Your task to perform on an android device: Open the calendar app, open the side menu, and click the "Day" option Image 0: 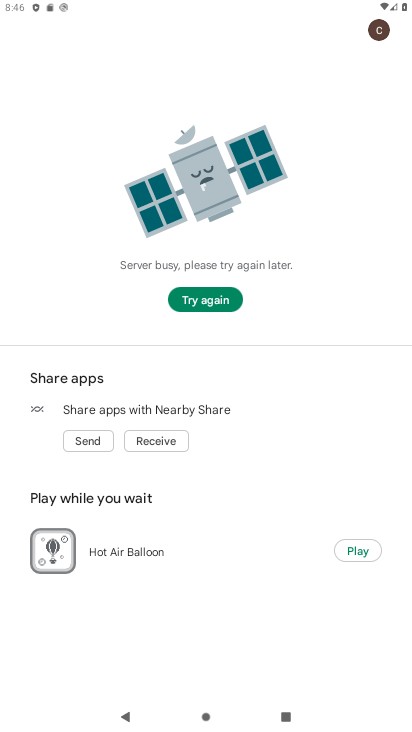
Step 0: press home button
Your task to perform on an android device: Open the calendar app, open the side menu, and click the "Day" option Image 1: 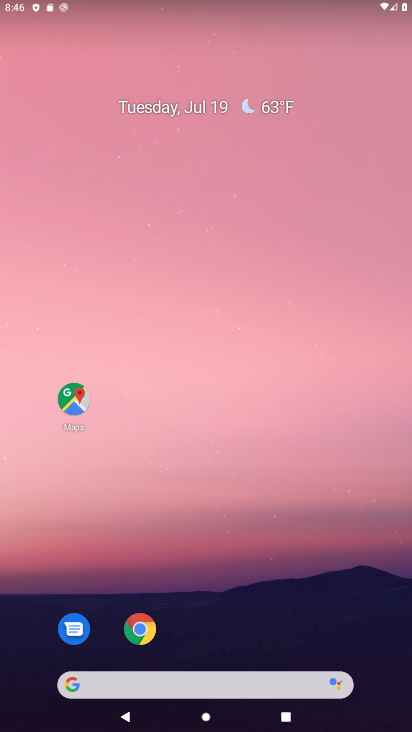
Step 1: drag from (236, 647) to (246, 58)
Your task to perform on an android device: Open the calendar app, open the side menu, and click the "Day" option Image 2: 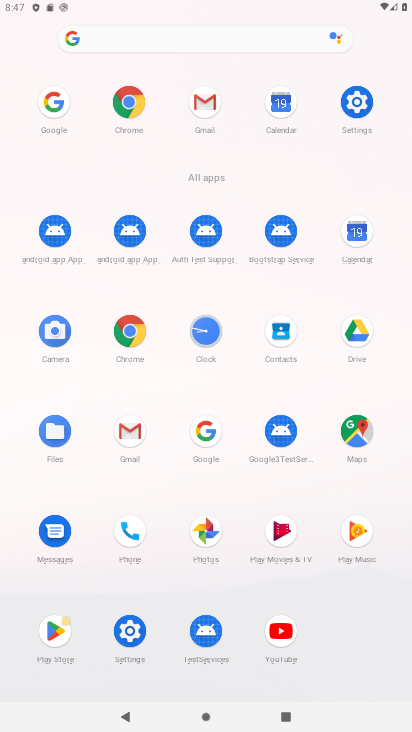
Step 2: click (354, 231)
Your task to perform on an android device: Open the calendar app, open the side menu, and click the "Day" option Image 3: 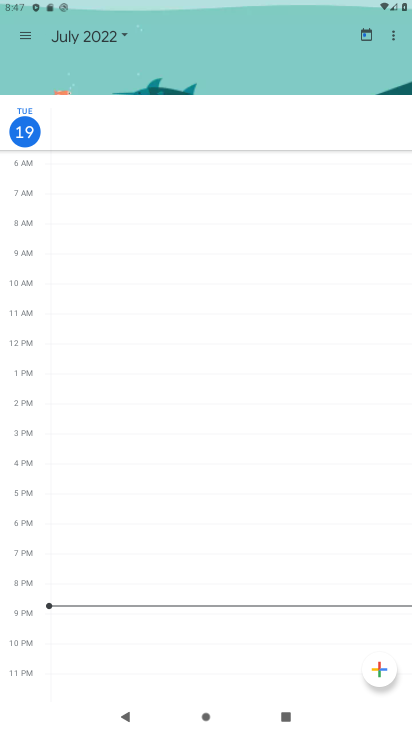
Step 3: click (29, 32)
Your task to perform on an android device: Open the calendar app, open the side menu, and click the "Day" option Image 4: 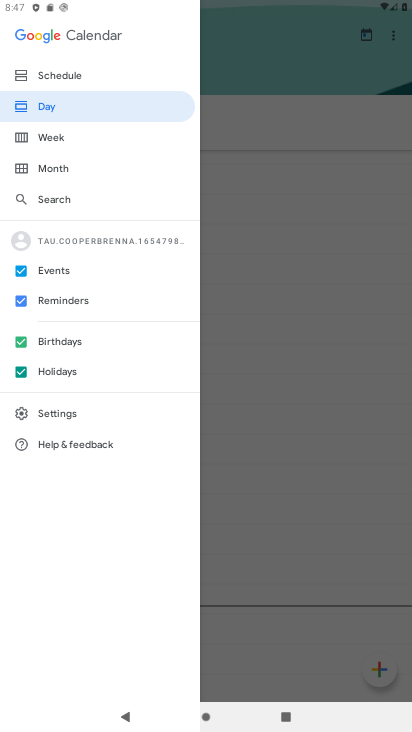
Step 4: click (49, 109)
Your task to perform on an android device: Open the calendar app, open the side menu, and click the "Day" option Image 5: 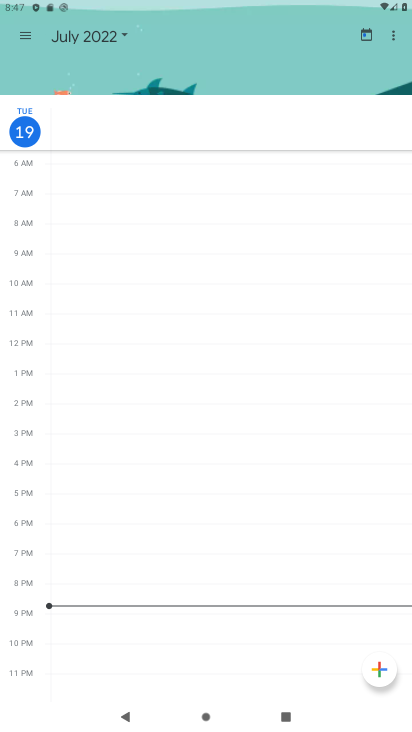
Step 5: task complete